Your task to perform on an android device: check out phone information Image 0: 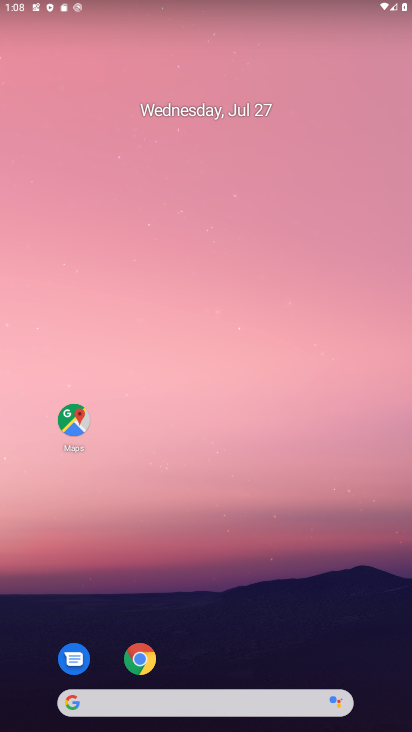
Step 0: click (253, 29)
Your task to perform on an android device: check out phone information Image 1: 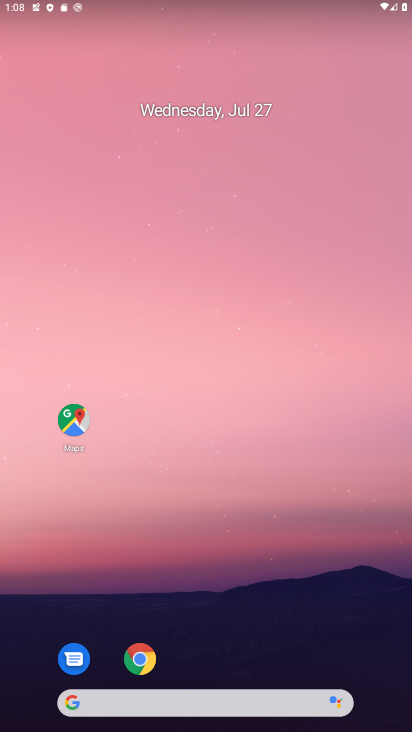
Step 1: drag from (281, 607) to (308, 65)
Your task to perform on an android device: check out phone information Image 2: 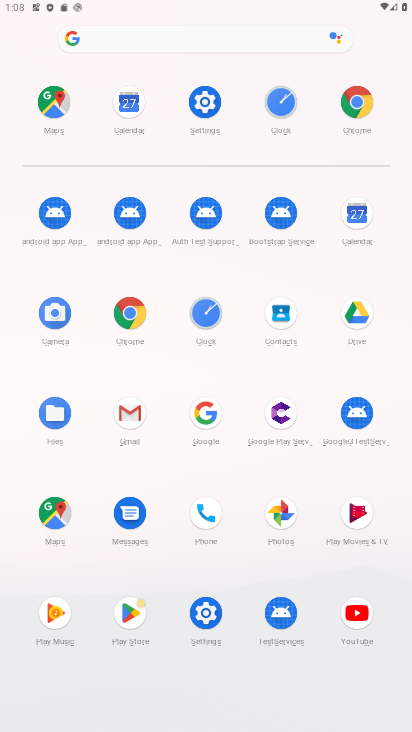
Step 2: click (204, 518)
Your task to perform on an android device: check out phone information Image 3: 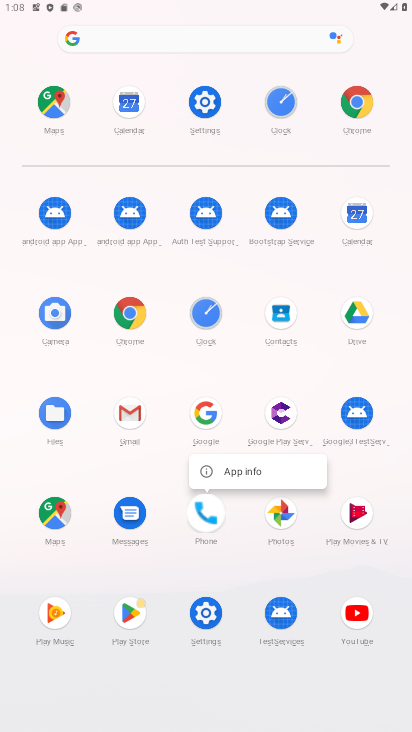
Step 3: click (239, 475)
Your task to perform on an android device: check out phone information Image 4: 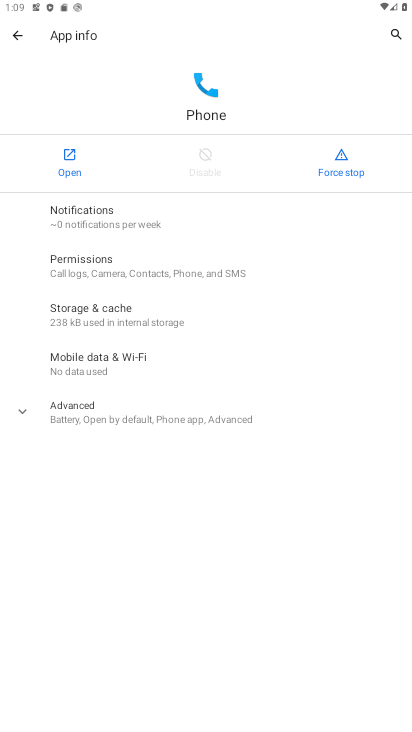
Step 4: task complete